Your task to perform on an android device: Go to Google Image 0: 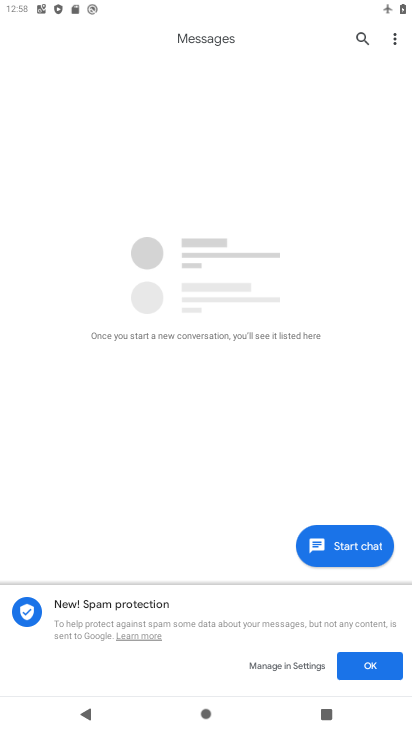
Step 0: press home button
Your task to perform on an android device: Go to Google Image 1: 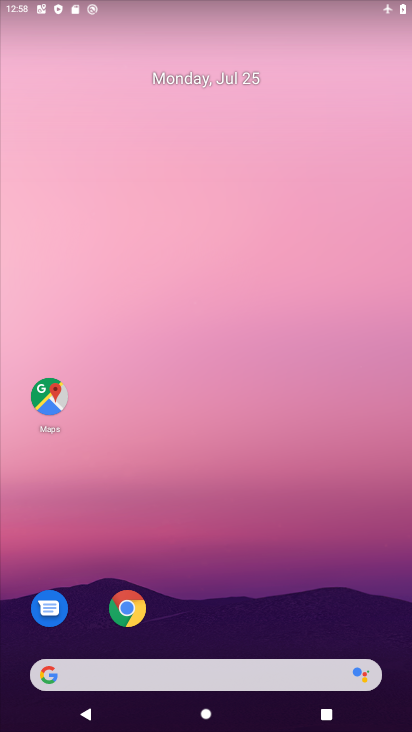
Step 1: drag from (217, 638) to (206, 21)
Your task to perform on an android device: Go to Google Image 2: 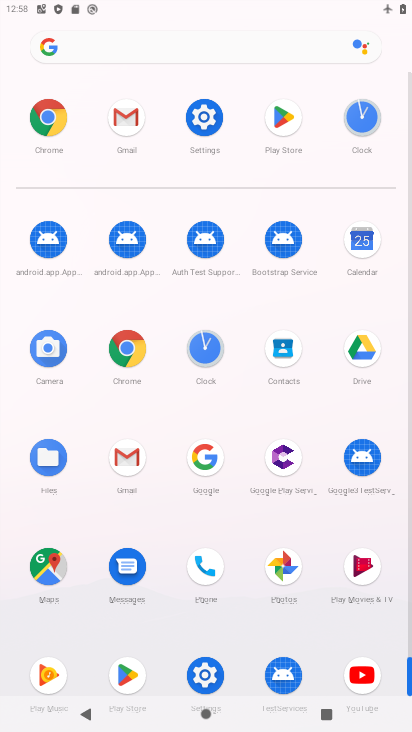
Step 2: click (208, 460)
Your task to perform on an android device: Go to Google Image 3: 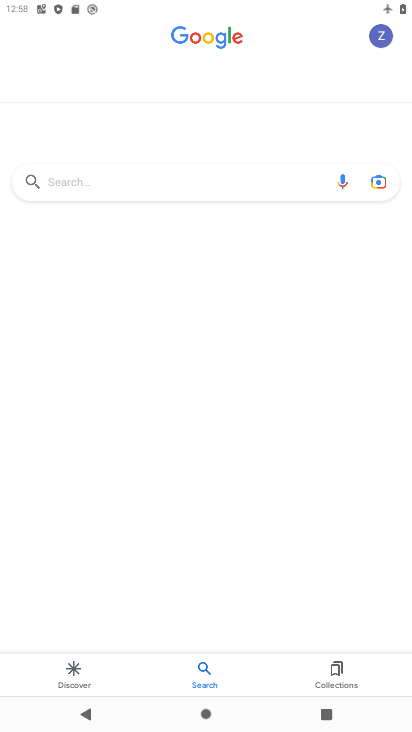
Step 3: task complete